Your task to perform on an android device: Open Android settings Image 0: 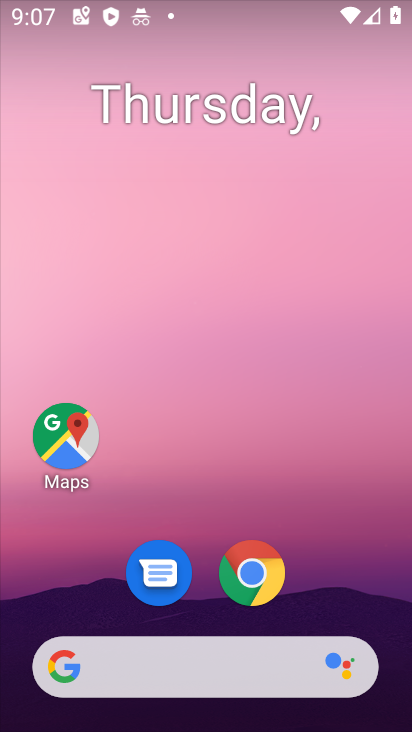
Step 0: drag from (347, 591) to (310, 168)
Your task to perform on an android device: Open Android settings Image 1: 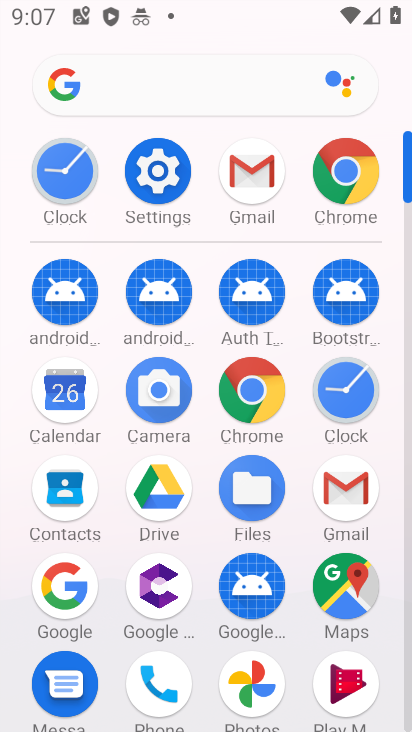
Step 1: click (182, 147)
Your task to perform on an android device: Open Android settings Image 2: 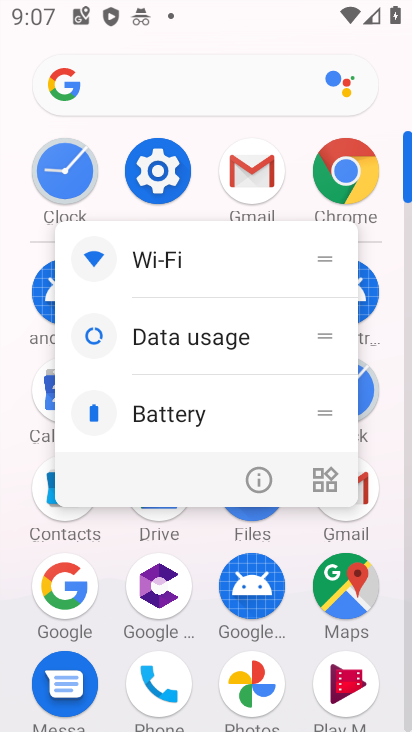
Step 2: click (158, 181)
Your task to perform on an android device: Open Android settings Image 3: 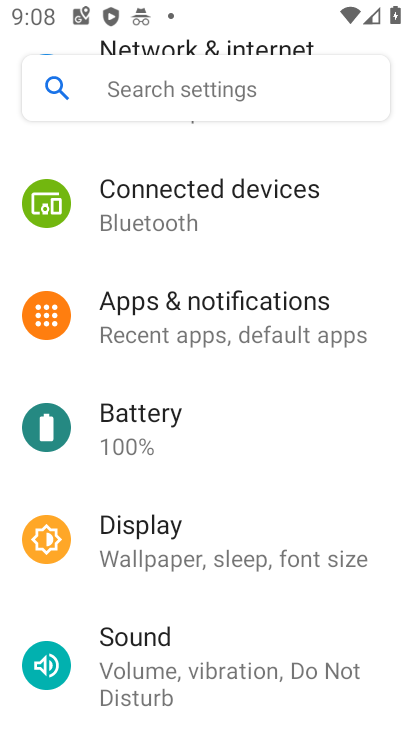
Step 3: drag from (250, 607) to (251, 395)
Your task to perform on an android device: Open Android settings Image 4: 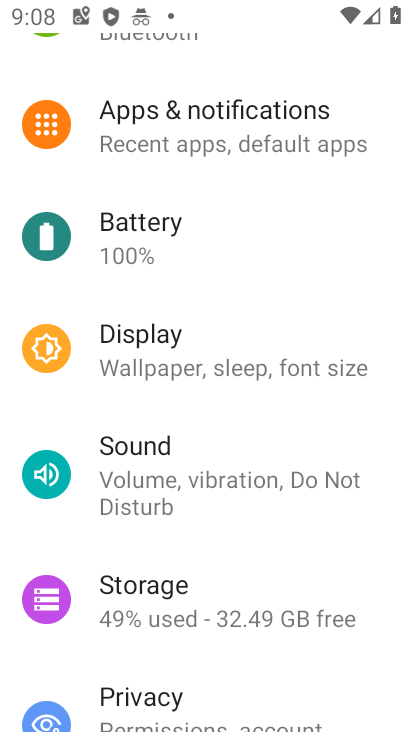
Step 4: drag from (277, 623) to (283, 354)
Your task to perform on an android device: Open Android settings Image 5: 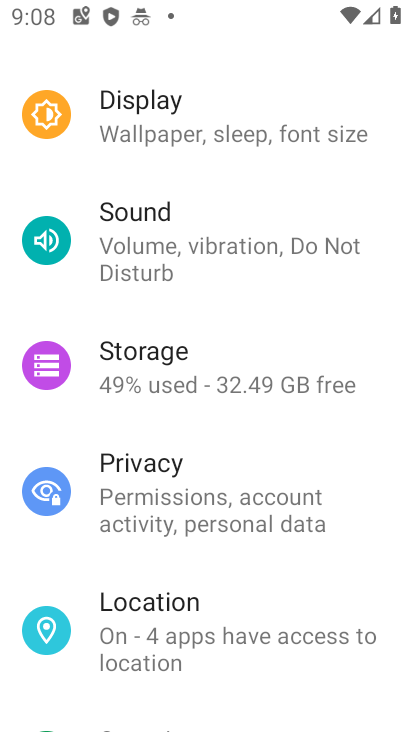
Step 5: drag from (270, 596) to (267, 280)
Your task to perform on an android device: Open Android settings Image 6: 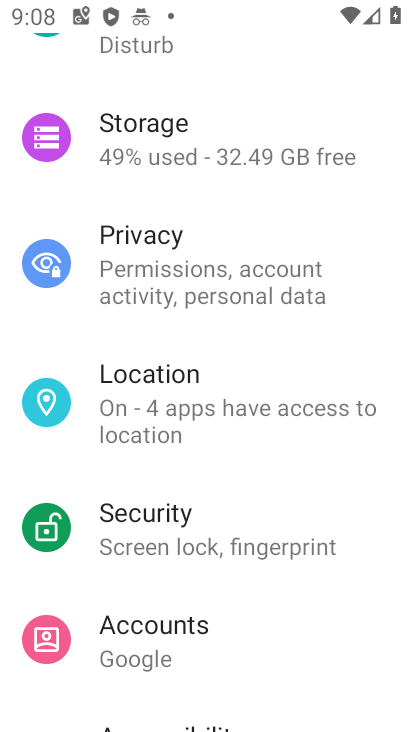
Step 6: drag from (269, 605) to (278, 294)
Your task to perform on an android device: Open Android settings Image 7: 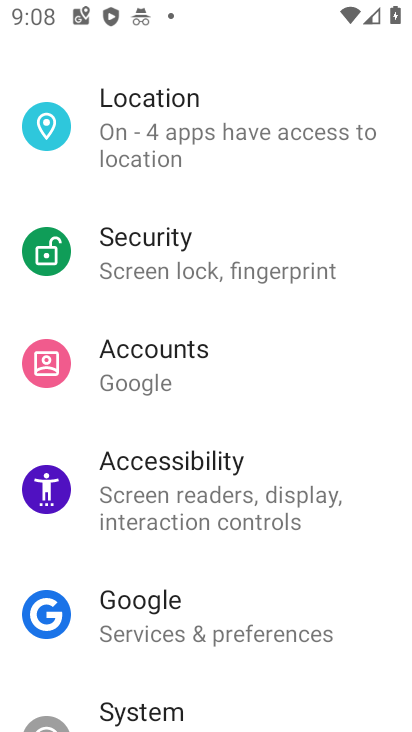
Step 7: drag from (270, 595) to (270, 275)
Your task to perform on an android device: Open Android settings Image 8: 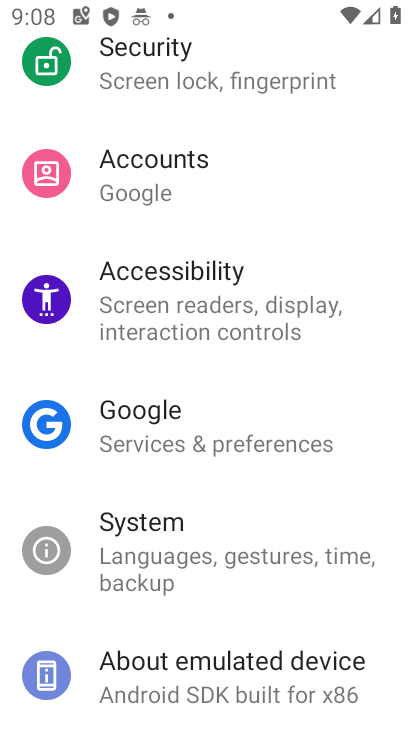
Step 8: drag from (262, 611) to (281, 266)
Your task to perform on an android device: Open Android settings Image 9: 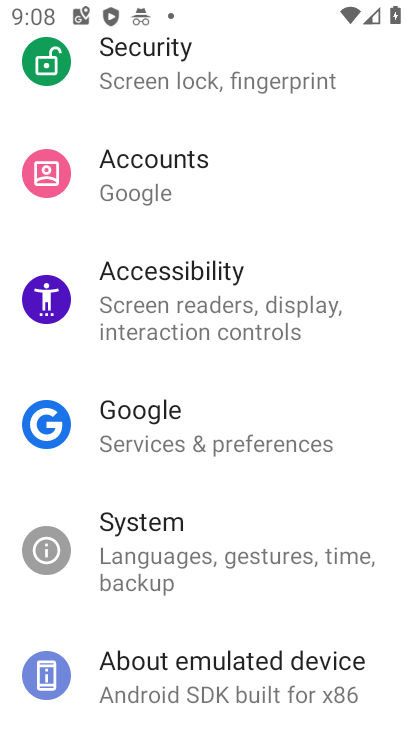
Step 9: click (226, 658)
Your task to perform on an android device: Open Android settings Image 10: 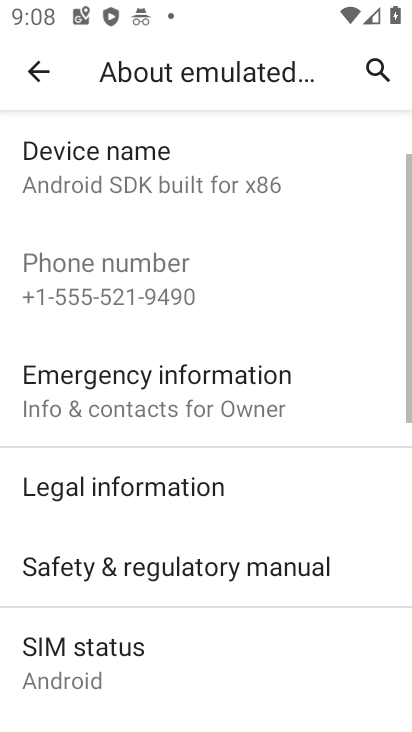
Step 10: task complete